Your task to perform on an android device: Open Maps and search for coffee Image 0: 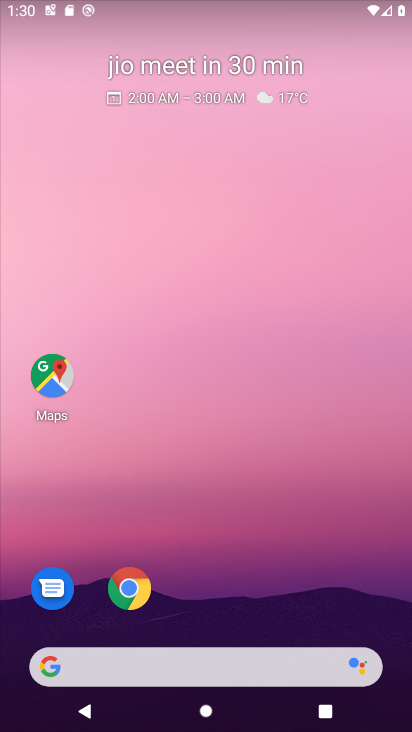
Step 0: click (51, 383)
Your task to perform on an android device: Open Maps and search for coffee Image 1: 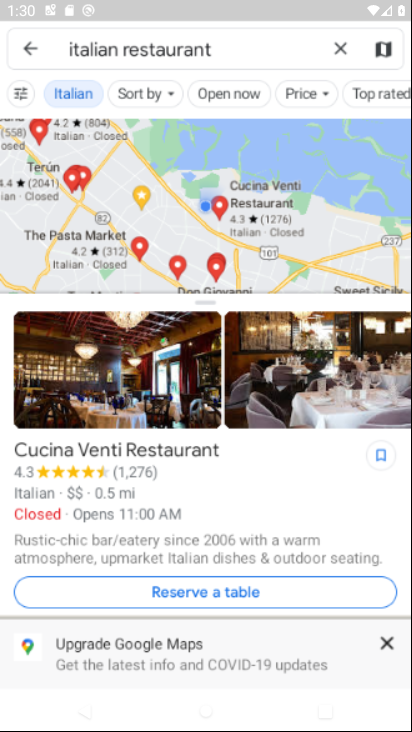
Step 1: click (335, 46)
Your task to perform on an android device: Open Maps and search for coffee Image 2: 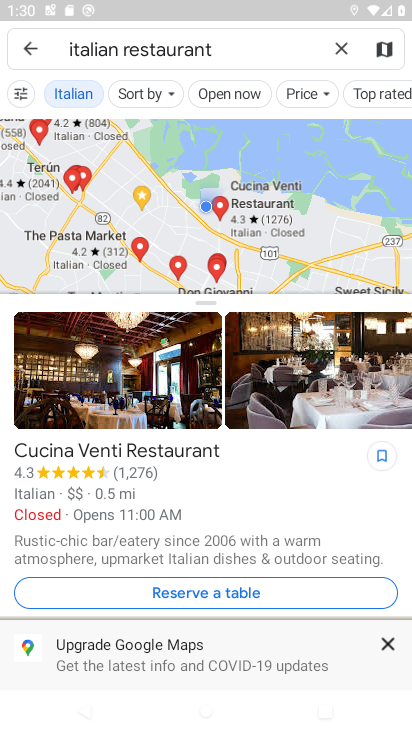
Step 2: click (342, 47)
Your task to perform on an android device: Open Maps and search for coffee Image 3: 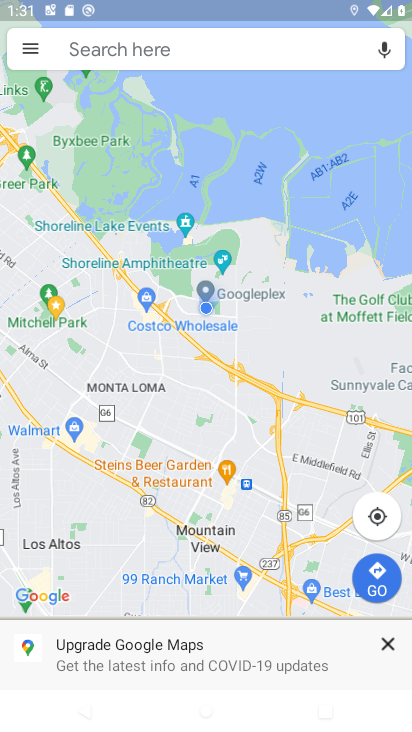
Step 3: click (146, 49)
Your task to perform on an android device: Open Maps and search for coffee Image 4: 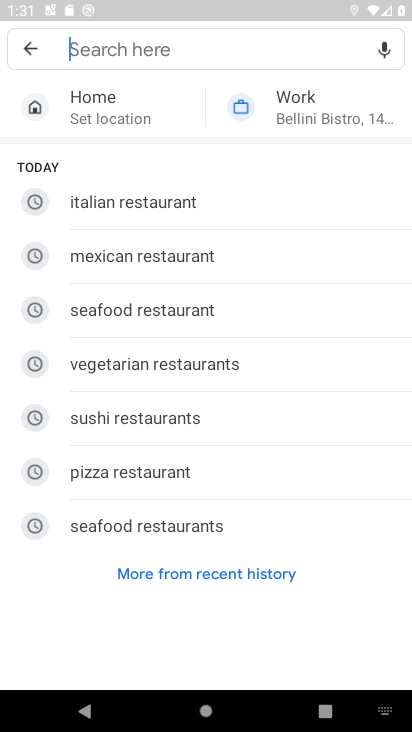
Step 4: type "coffee"
Your task to perform on an android device: Open Maps and search for coffee Image 5: 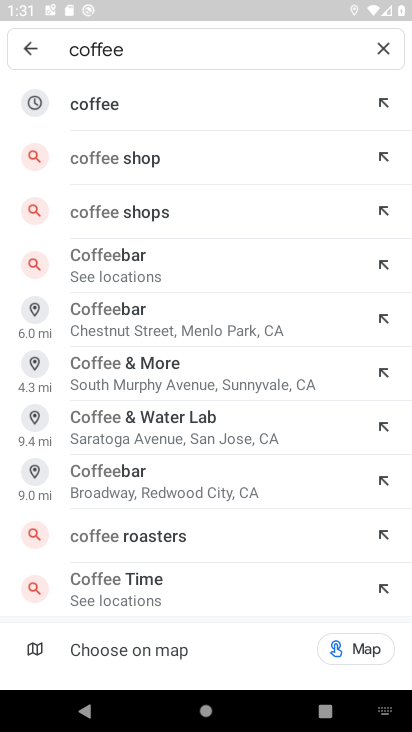
Step 5: click (301, 102)
Your task to perform on an android device: Open Maps and search for coffee Image 6: 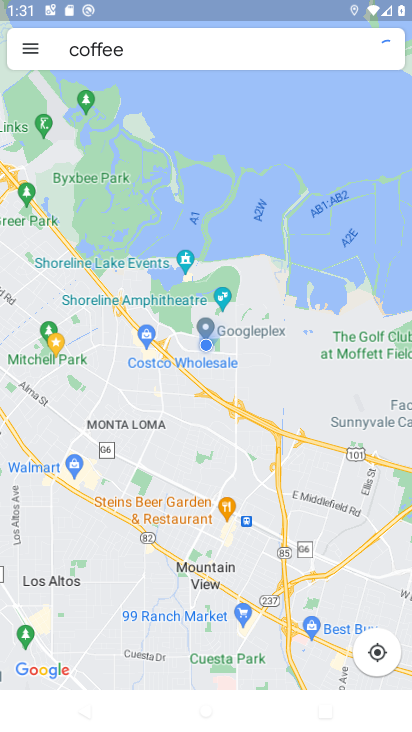
Step 6: task complete